Your task to perform on an android device: Go to battery settings Image 0: 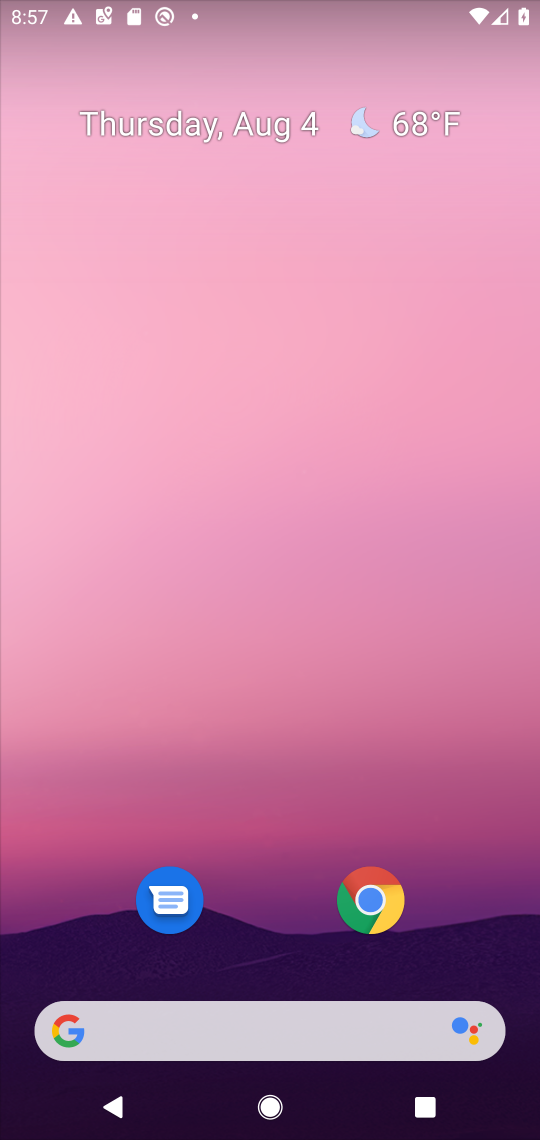
Step 0: drag from (234, 934) to (373, 38)
Your task to perform on an android device: Go to battery settings Image 1: 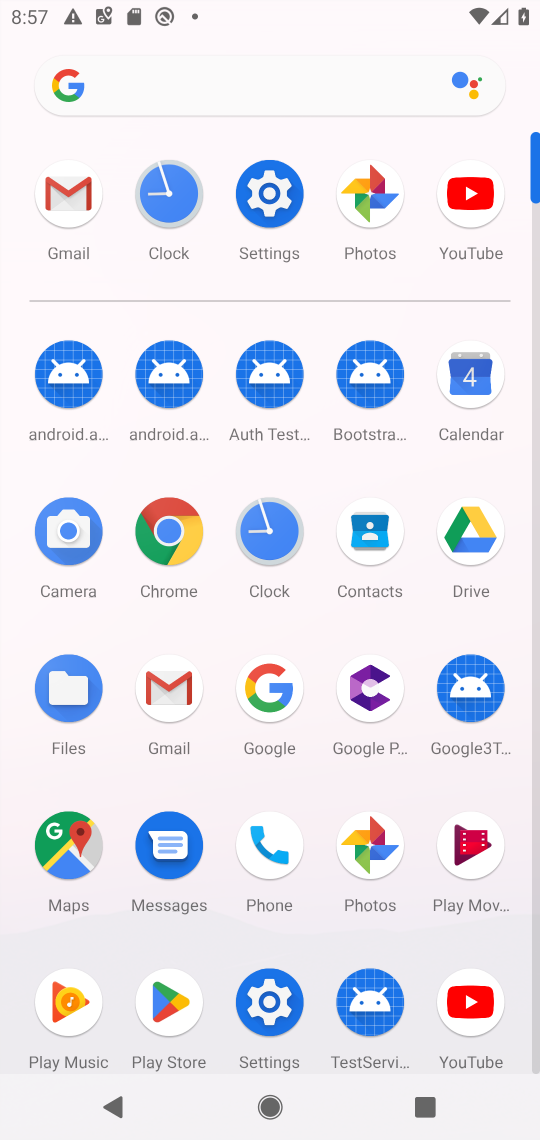
Step 1: click (264, 195)
Your task to perform on an android device: Go to battery settings Image 2: 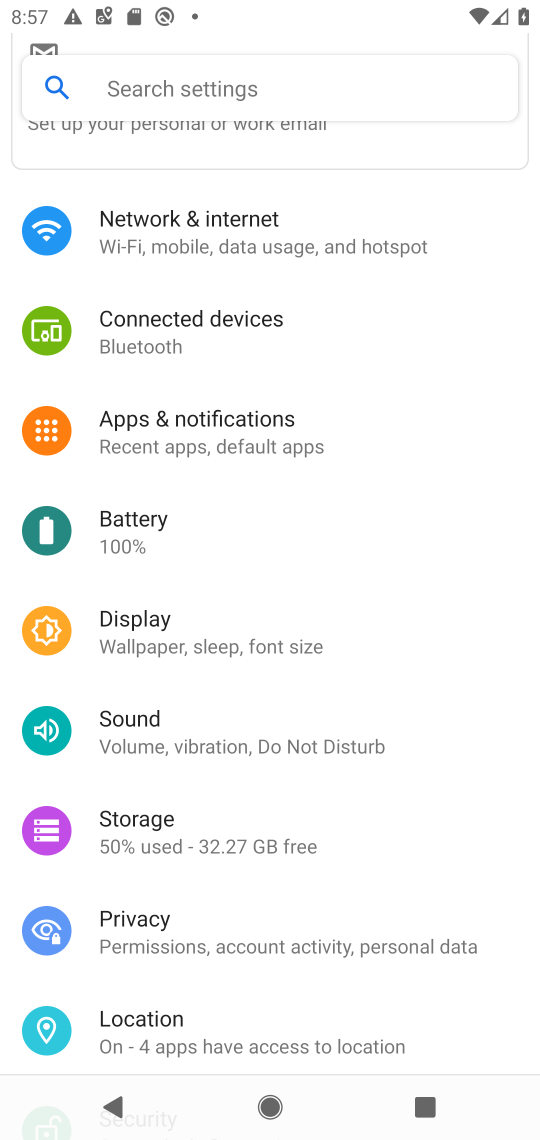
Step 2: click (158, 536)
Your task to perform on an android device: Go to battery settings Image 3: 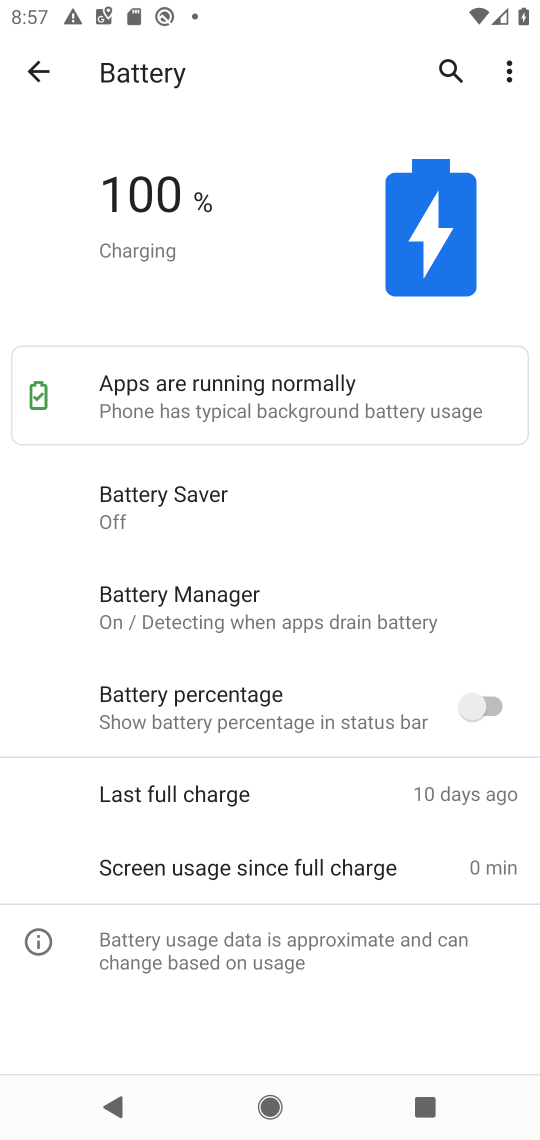
Step 3: task complete